Your task to perform on an android device: Is it going to rain today? Image 0: 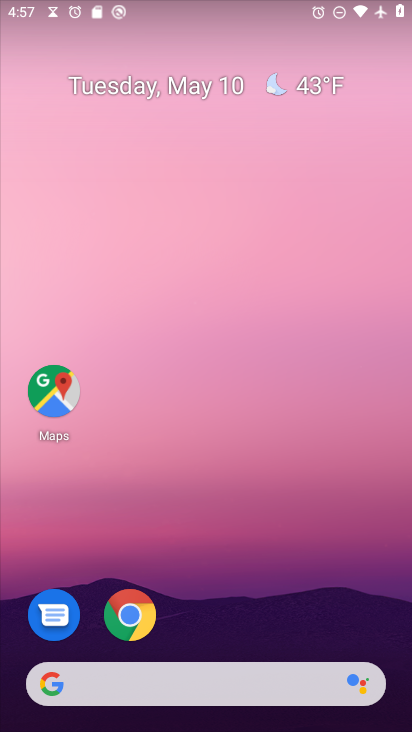
Step 0: drag from (223, 530) to (205, 17)
Your task to perform on an android device: Is it going to rain today? Image 1: 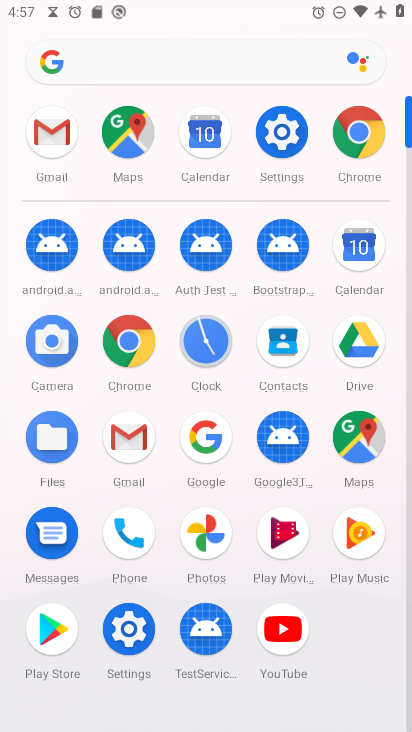
Step 1: click (124, 328)
Your task to perform on an android device: Is it going to rain today? Image 2: 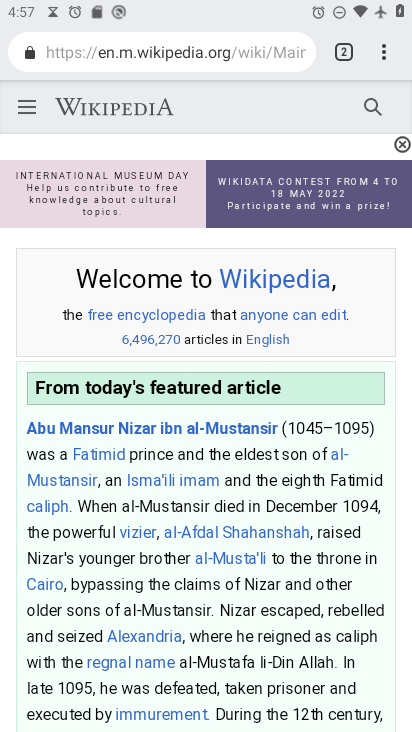
Step 2: click (188, 40)
Your task to perform on an android device: Is it going to rain today? Image 3: 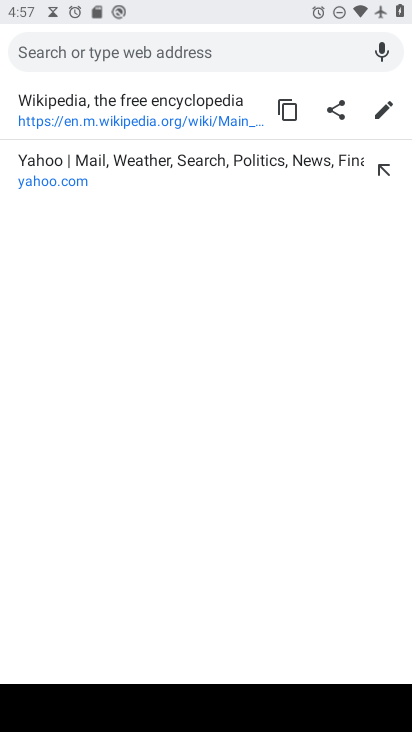
Step 3: type "Is it going to rain today?"
Your task to perform on an android device: Is it going to rain today? Image 4: 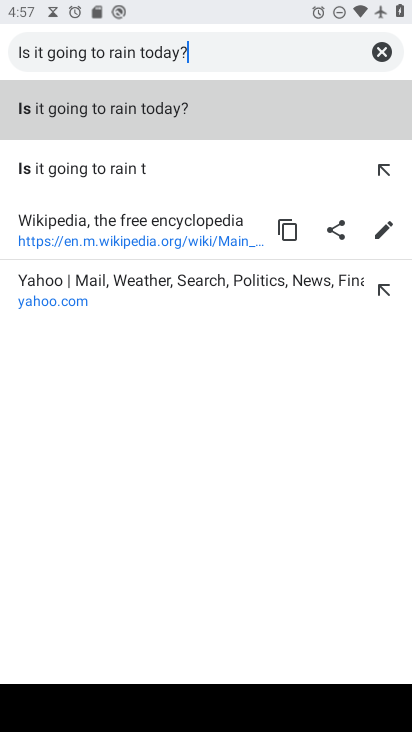
Step 4: type ""
Your task to perform on an android device: Is it going to rain today? Image 5: 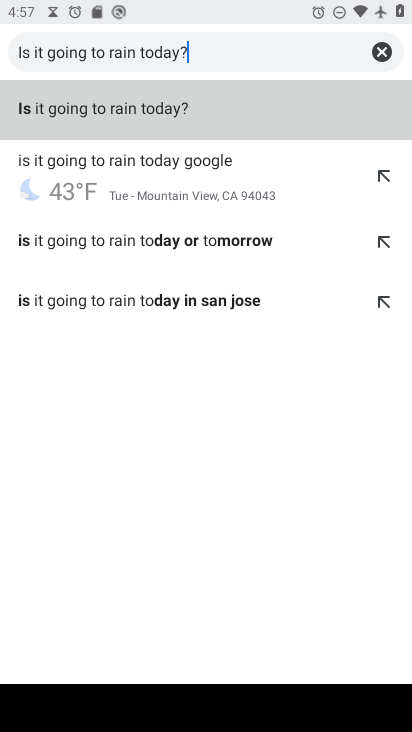
Step 5: click (187, 109)
Your task to perform on an android device: Is it going to rain today? Image 6: 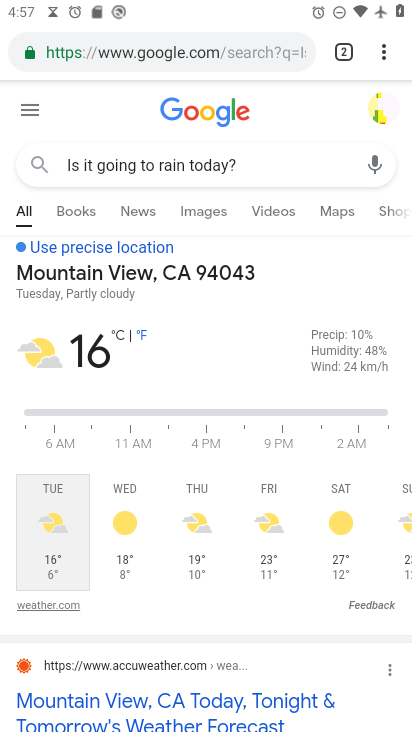
Step 6: task complete